Your task to perform on an android device: Open the map Image 0: 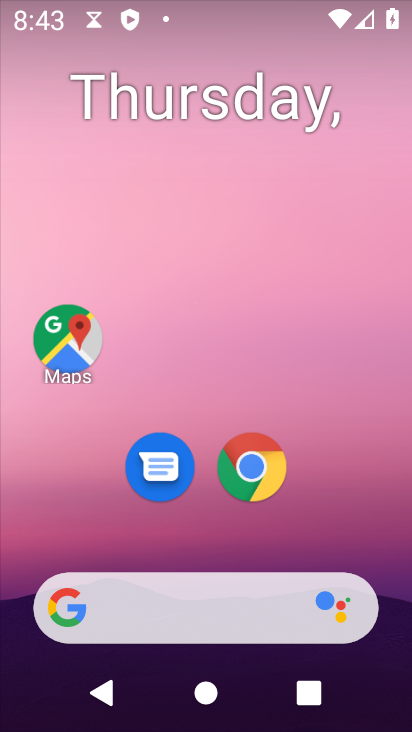
Step 0: drag from (322, 531) to (244, 71)
Your task to perform on an android device: Open the map Image 1: 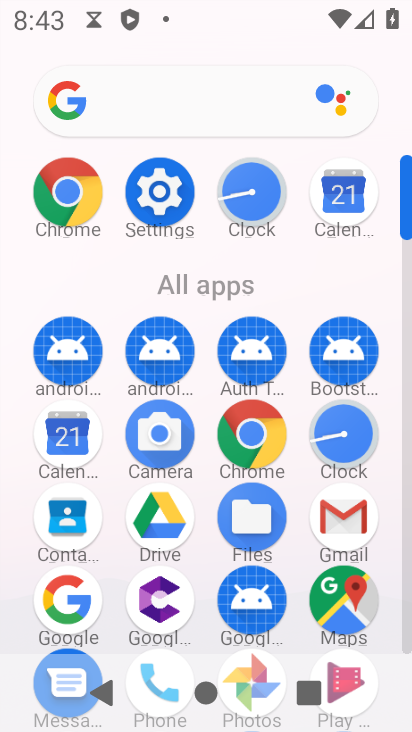
Step 1: click (354, 590)
Your task to perform on an android device: Open the map Image 2: 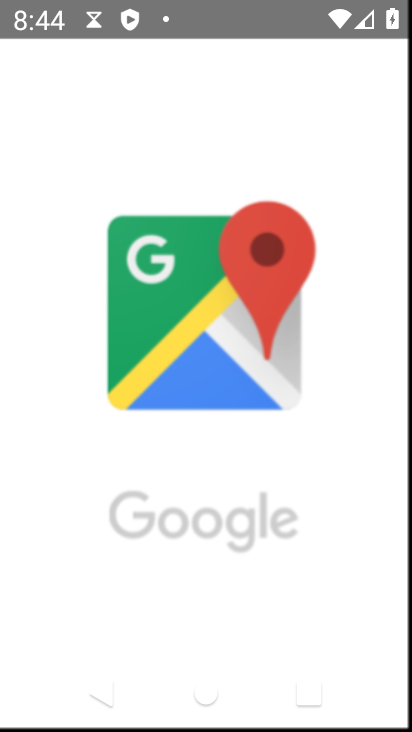
Step 2: press home button
Your task to perform on an android device: Open the map Image 3: 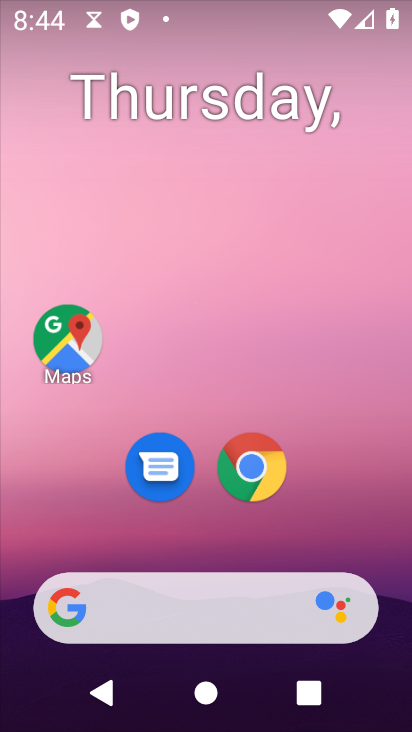
Step 3: click (53, 332)
Your task to perform on an android device: Open the map Image 4: 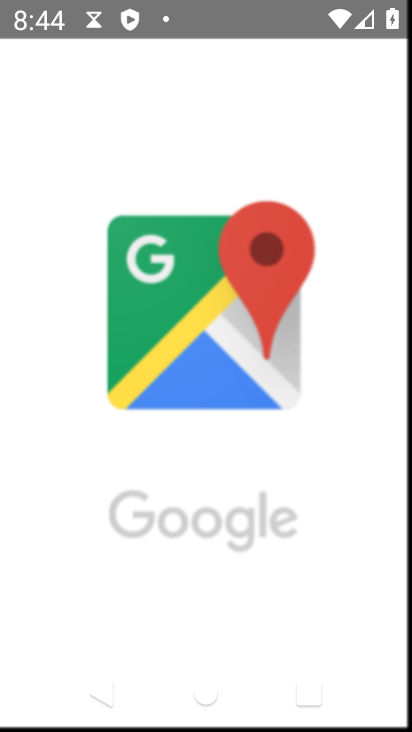
Step 4: task complete